Your task to perform on an android device: change the clock display to digital Image 0: 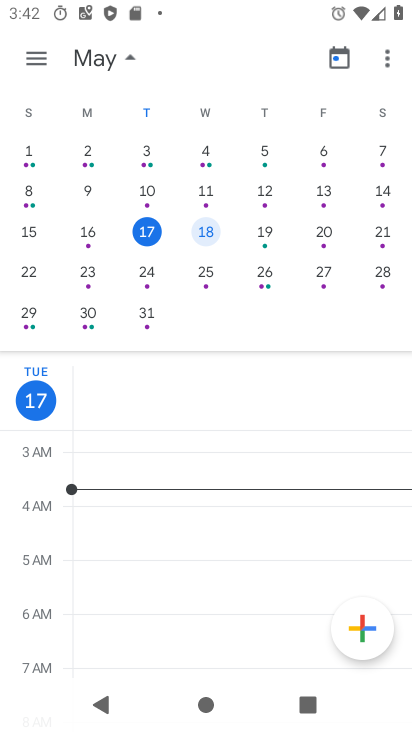
Step 0: press home button
Your task to perform on an android device: change the clock display to digital Image 1: 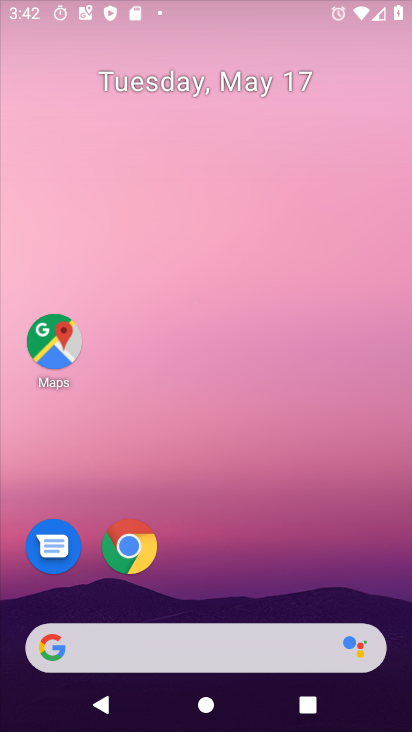
Step 1: drag from (275, 653) to (307, 294)
Your task to perform on an android device: change the clock display to digital Image 2: 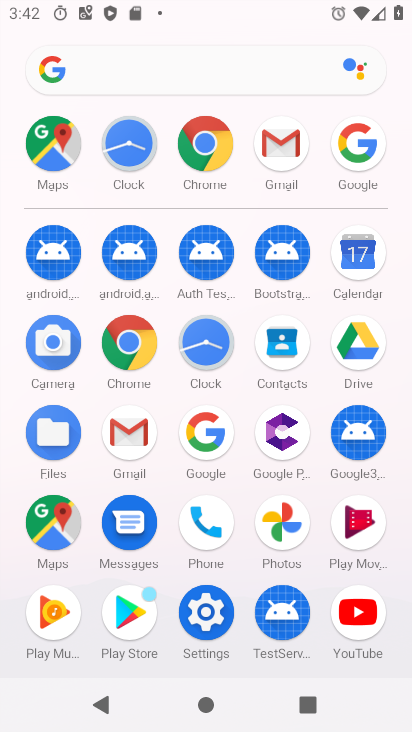
Step 2: click (205, 358)
Your task to perform on an android device: change the clock display to digital Image 3: 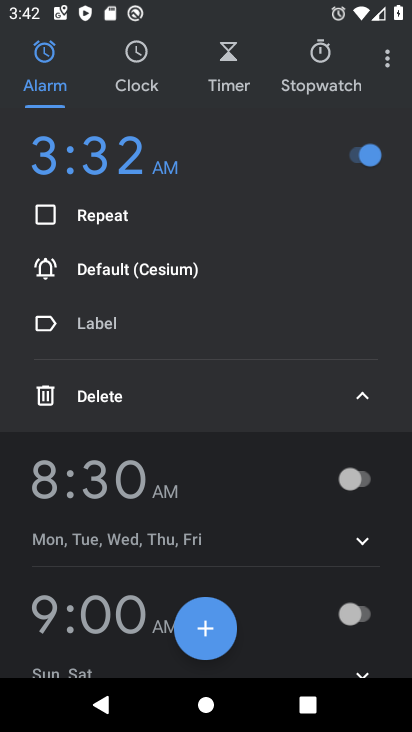
Step 3: click (398, 58)
Your task to perform on an android device: change the clock display to digital Image 4: 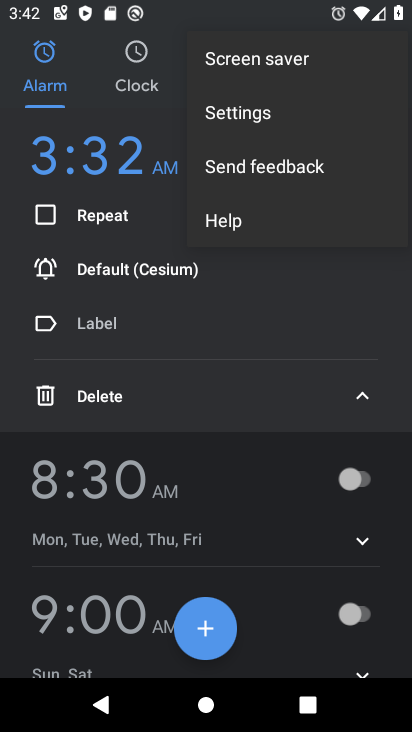
Step 4: click (280, 107)
Your task to perform on an android device: change the clock display to digital Image 5: 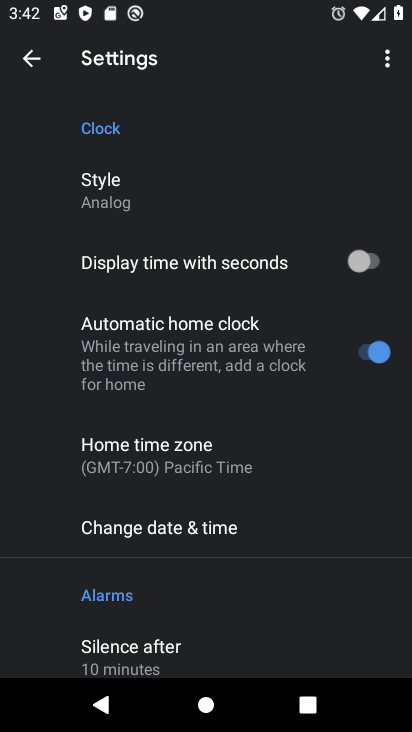
Step 5: click (182, 195)
Your task to perform on an android device: change the clock display to digital Image 6: 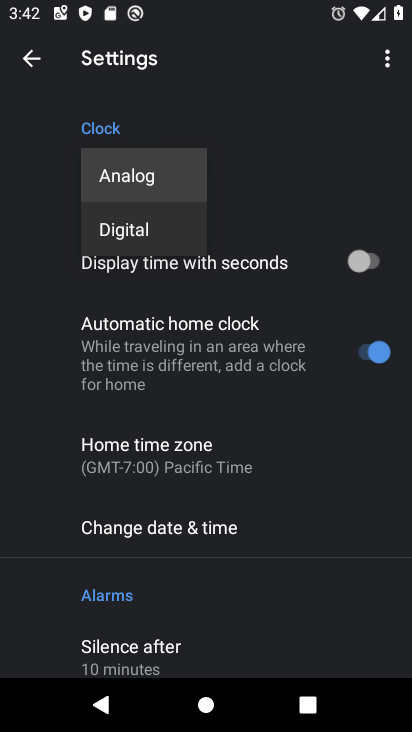
Step 6: click (167, 241)
Your task to perform on an android device: change the clock display to digital Image 7: 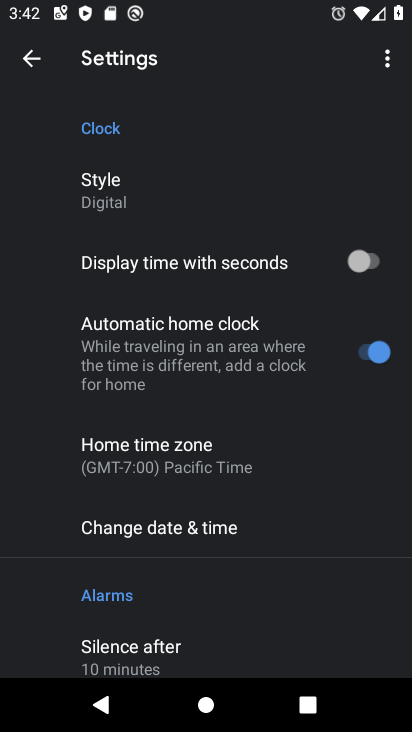
Step 7: task complete